Your task to perform on an android device: open a bookmark in the chrome app Image 0: 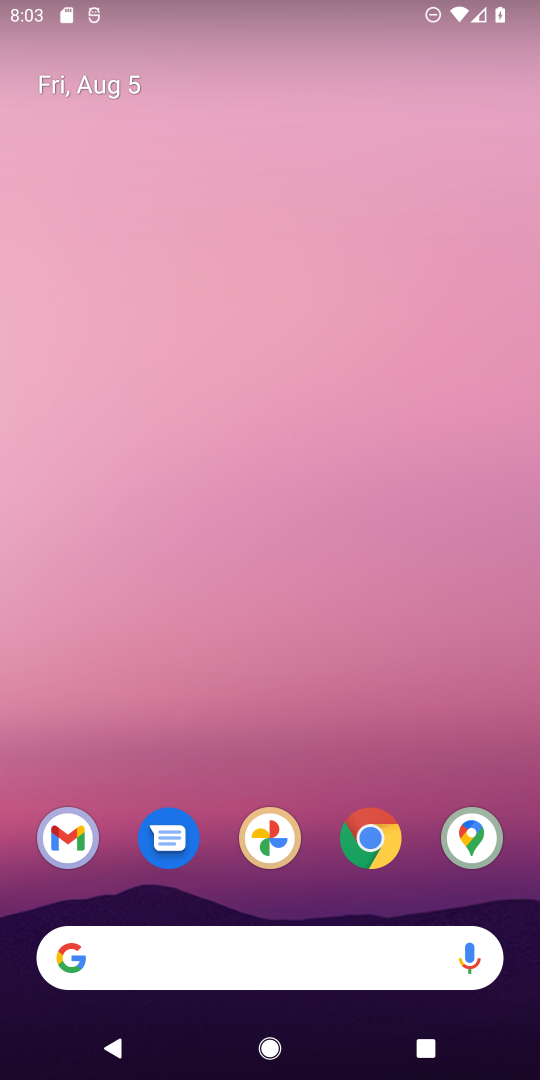
Step 0: click (381, 834)
Your task to perform on an android device: open a bookmark in the chrome app Image 1: 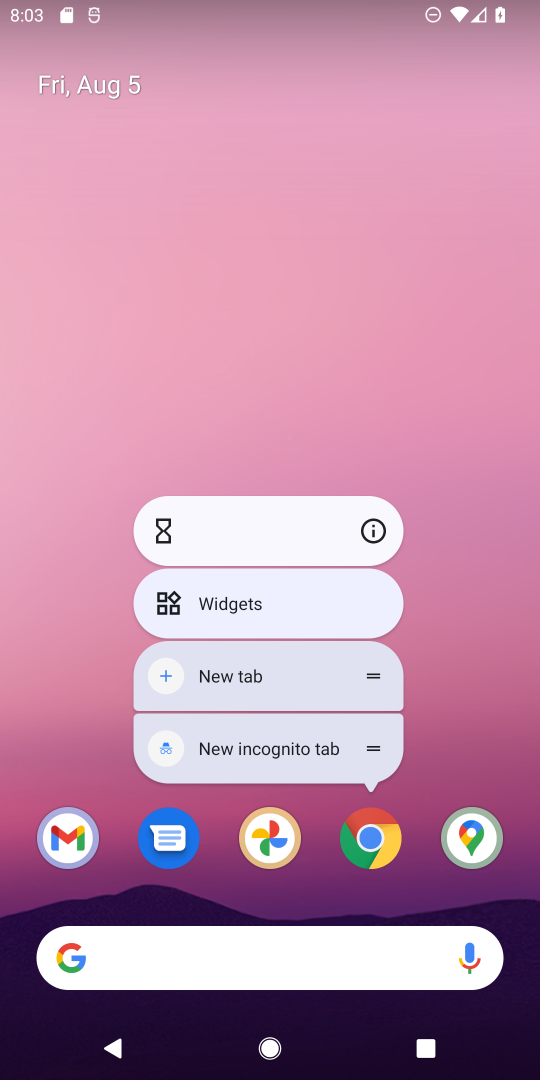
Step 1: click (379, 840)
Your task to perform on an android device: open a bookmark in the chrome app Image 2: 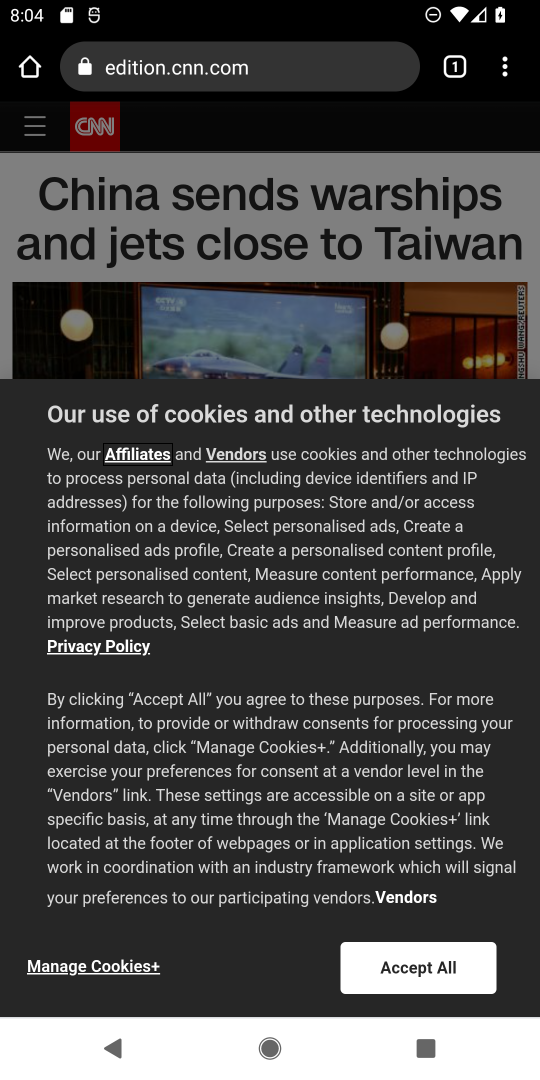
Step 2: click (521, 54)
Your task to perform on an android device: open a bookmark in the chrome app Image 3: 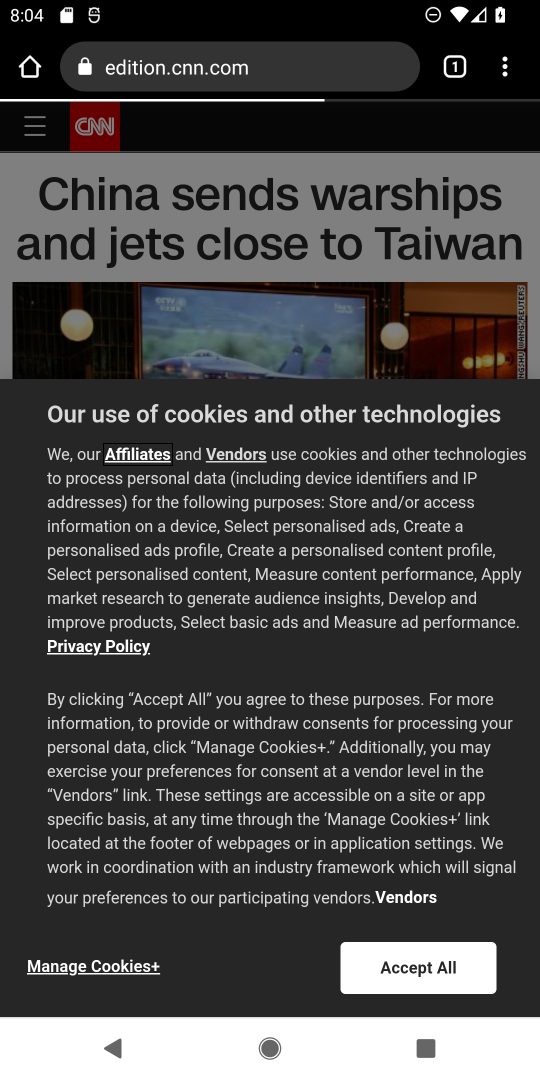
Step 3: click (503, 63)
Your task to perform on an android device: open a bookmark in the chrome app Image 4: 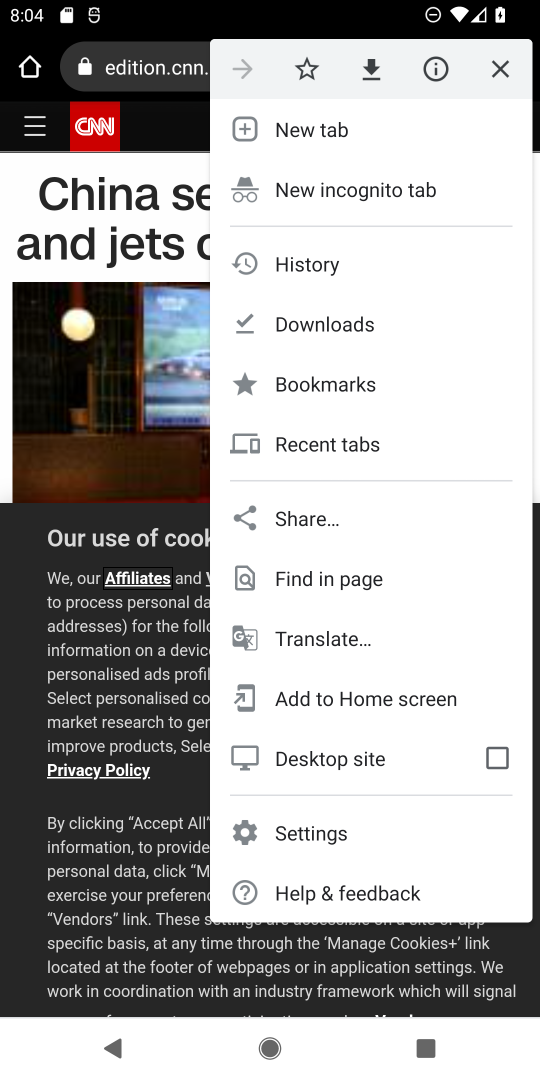
Step 4: click (331, 385)
Your task to perform on an android device: open a bookmark in the chrome app Image 5: 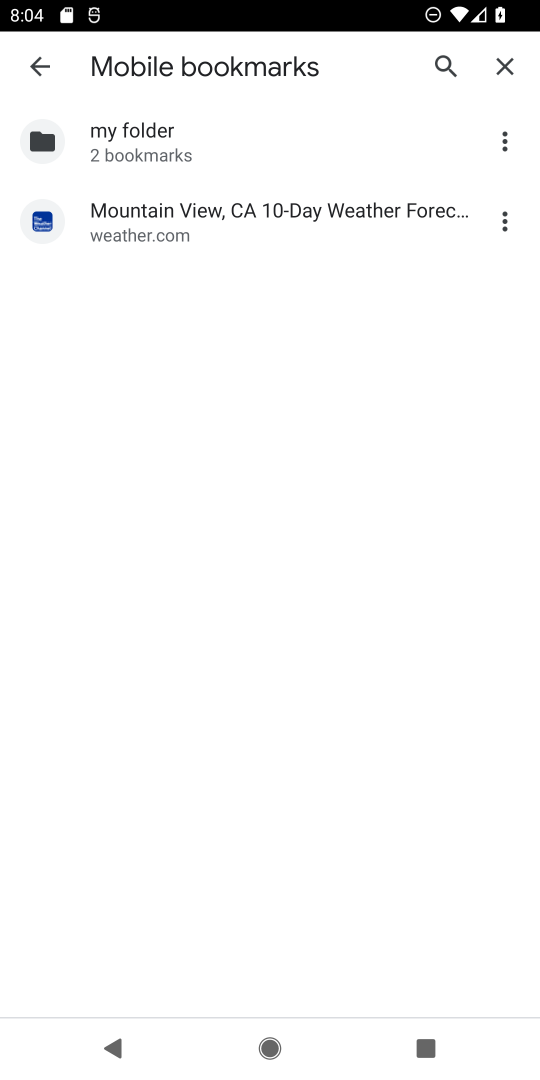
Step 5: task complete